Your task to perform on an android device: read, delete, or share a saved page in the chrome app Image 0: 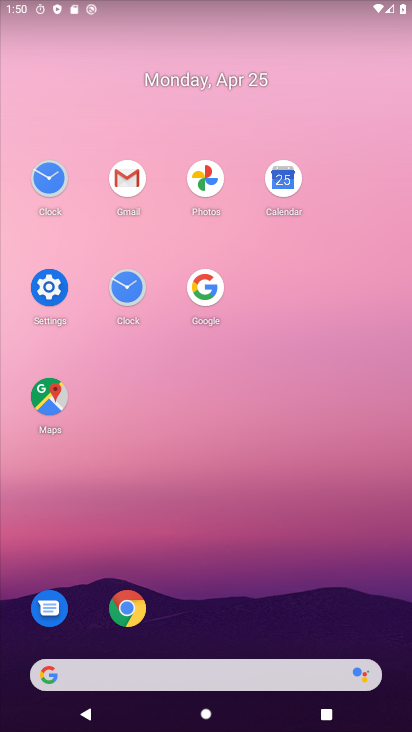
Step 0: click (127, 616)
Your task to perform on an android device: read, delete, or share a saved page in the chrome app Image 1: 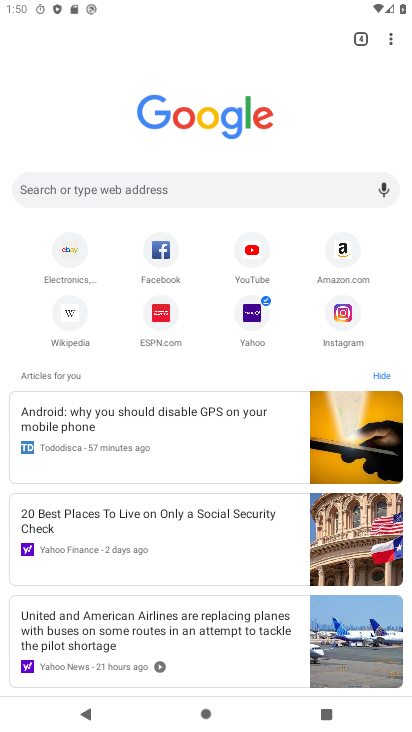
Step 1: click (387, 42)
Your task to perform on an android device: read, delete, or share a saved page in the chrome app Image 2: 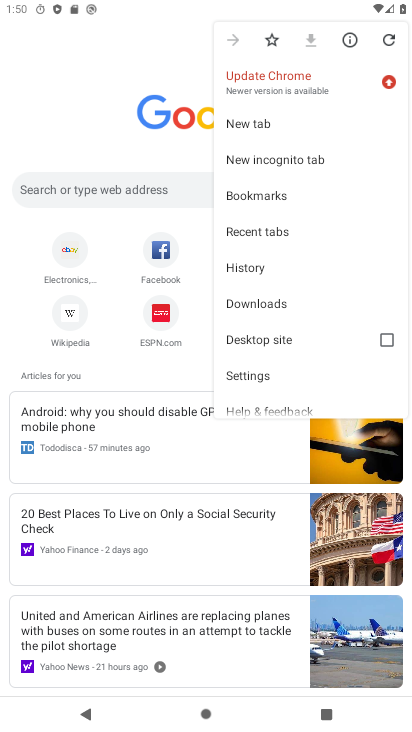
Step 2: click (281, 304)
Your task to perform on an android device: read, delete, or share a saved page in the chrome app Image 3: 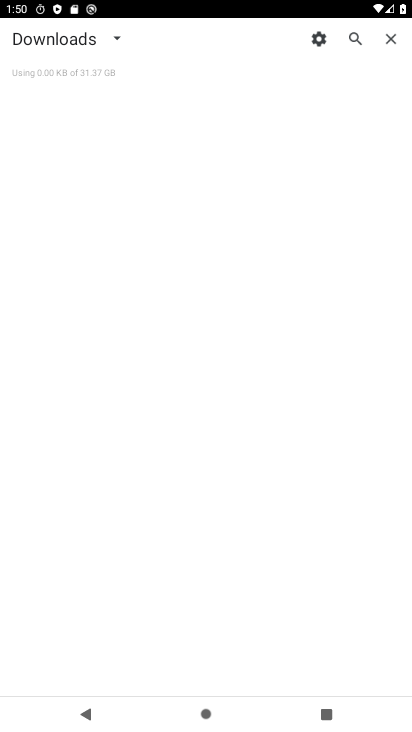
Step 3: task complete